Your task to perform on an android device: Open Google Chrome Image 0: 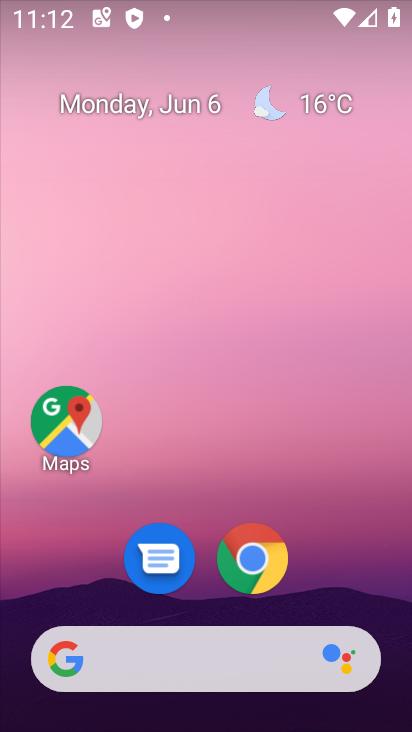
Step 0: click (253, 574)
Your task to perform on an android device: Open Google Chrome Image 1: 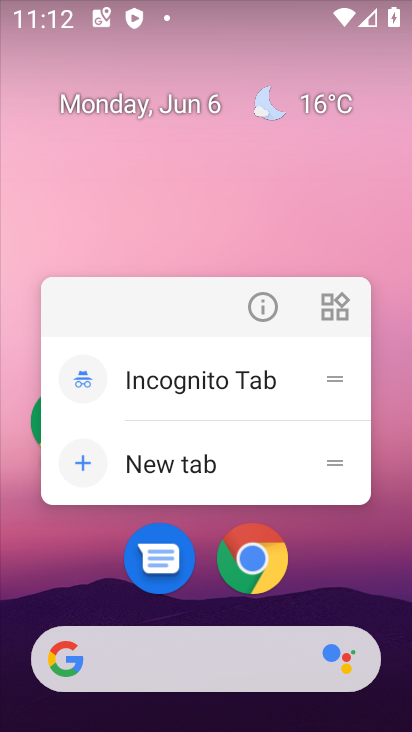
Step 1: click (257, 563)
Your task to perform on an android device: Open Google Chrome Image 2: 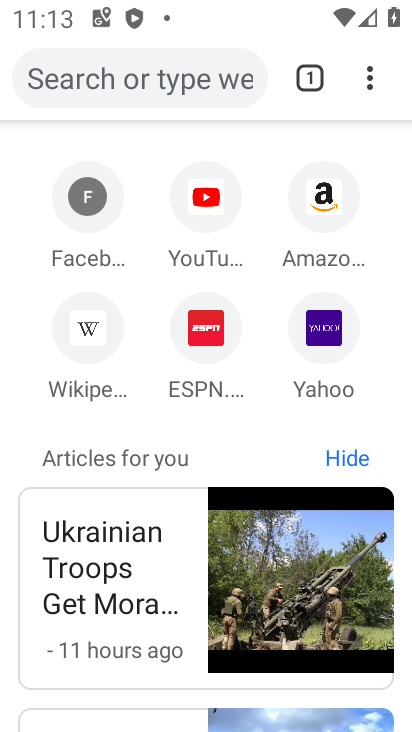
Step 2: task complete